Your task to perform on an android device: open device folders in google photos Image 0: 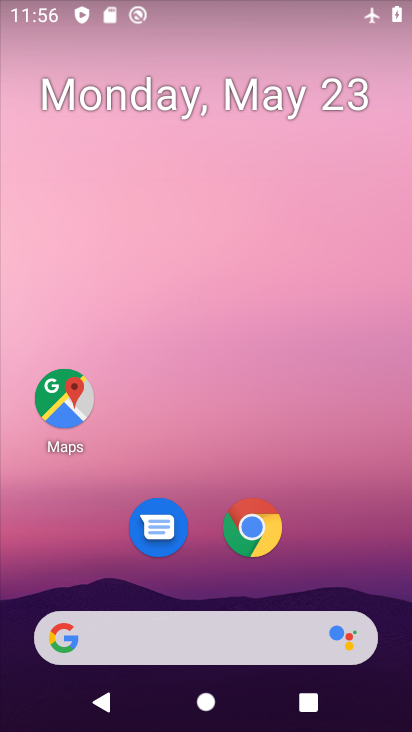
Step 0: drag from (150, 635) to (240, 108)
Your task to perform on an android device: open device folders in google photos Image 1: 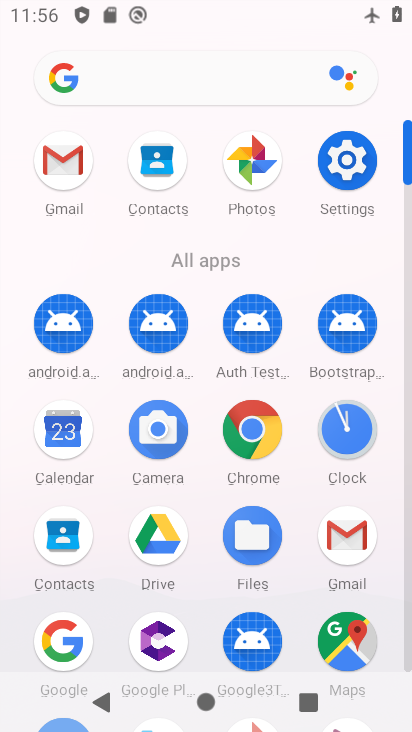
Step 1: click (251, 169)
Your task to perform on an android device: open device folders in google photos Image 2: 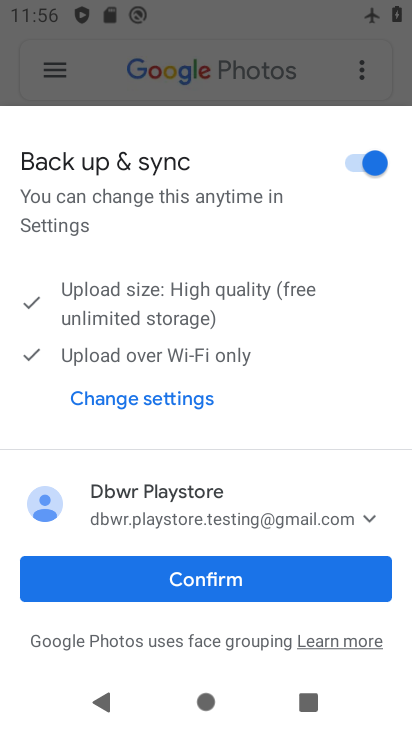
Step 2: click (207, 579)
Your task to perform on an android device: open device folders in google photos Image 3: 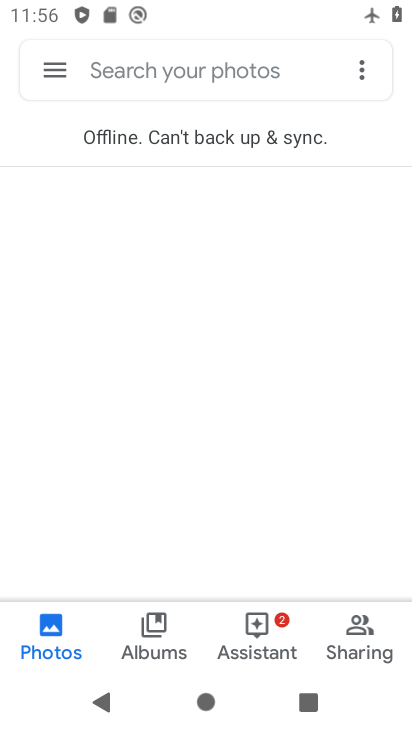
Step 3: click (63, 70)
Your task to perform on an android device: open device folders in google photos Image 4: 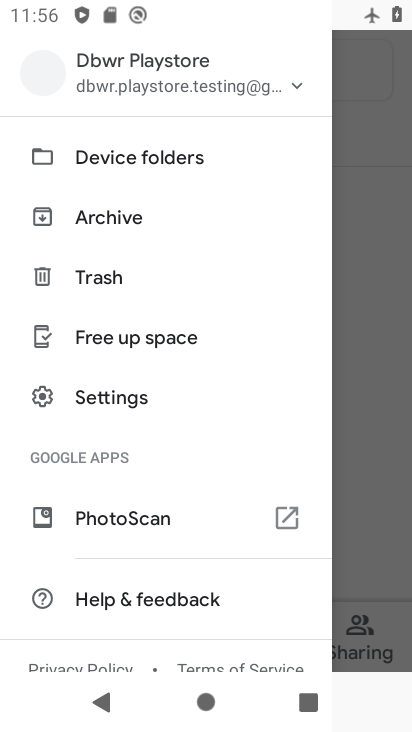
Step 4: click (117, 162)
Your task to perform on an android device: open device folders in google photos Image 5: 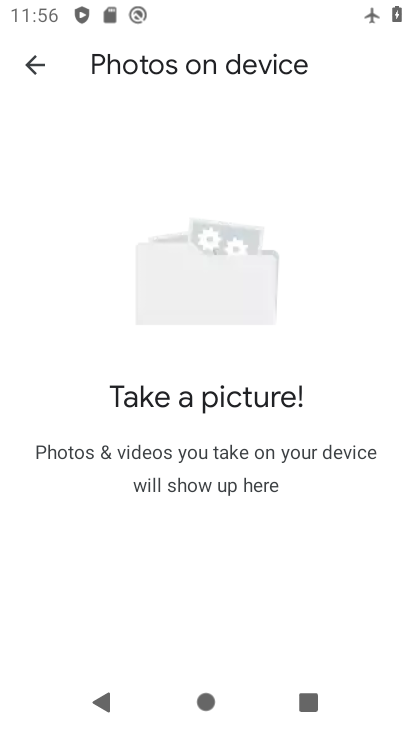
Step 5: task complete